Your task to perform on an android device: Open Yahoo.com Image 0: 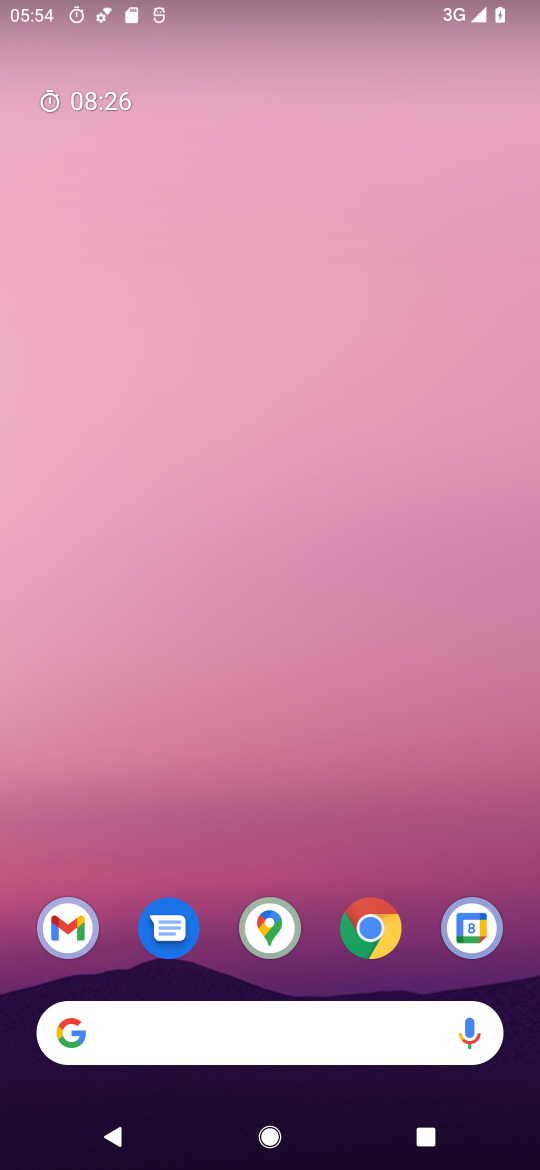
Step 0: drag from (249, 965) to (521, 451)
Your task to perform on an android device: Open Yahoo.com Image 1: 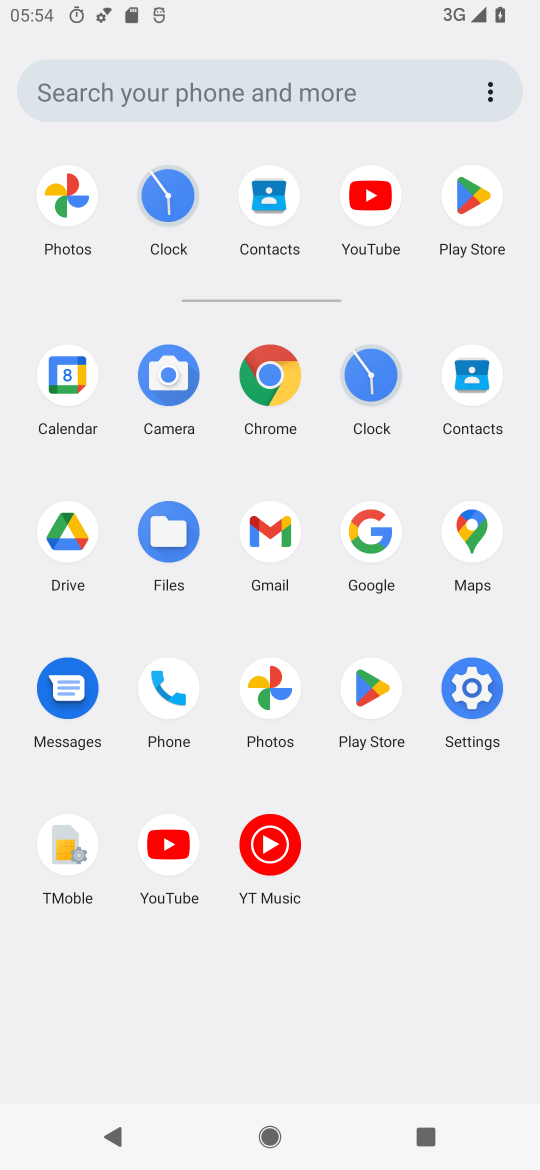
Step 1: click (256, 389)
Your task to perform on an android device: Open Yahoo.com Image 2: 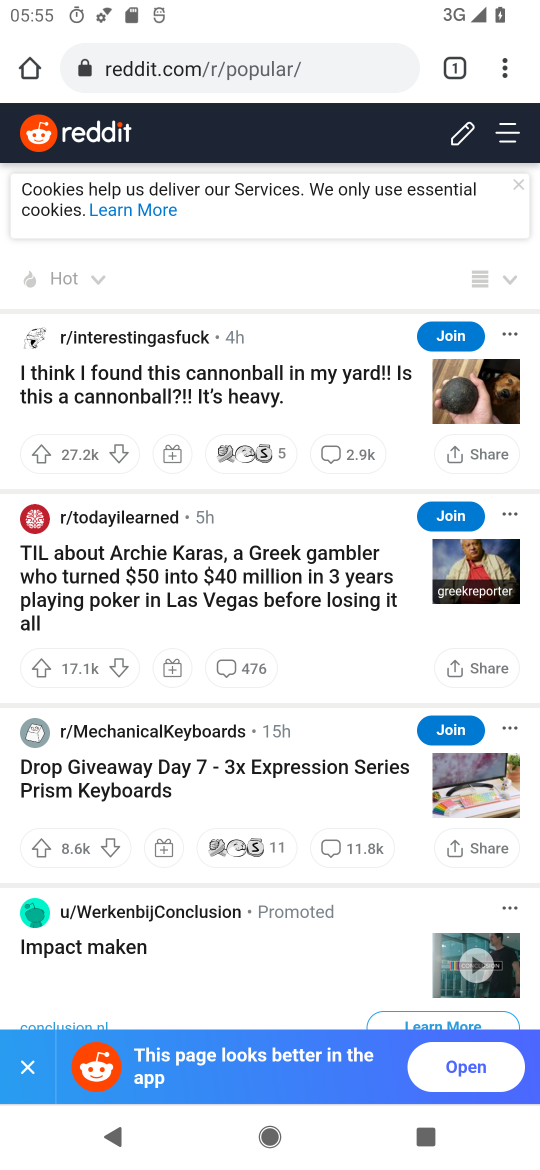
Step 2: click (273, 61)
Your task to perform on an android device: Open Yahoo.com Image 3: 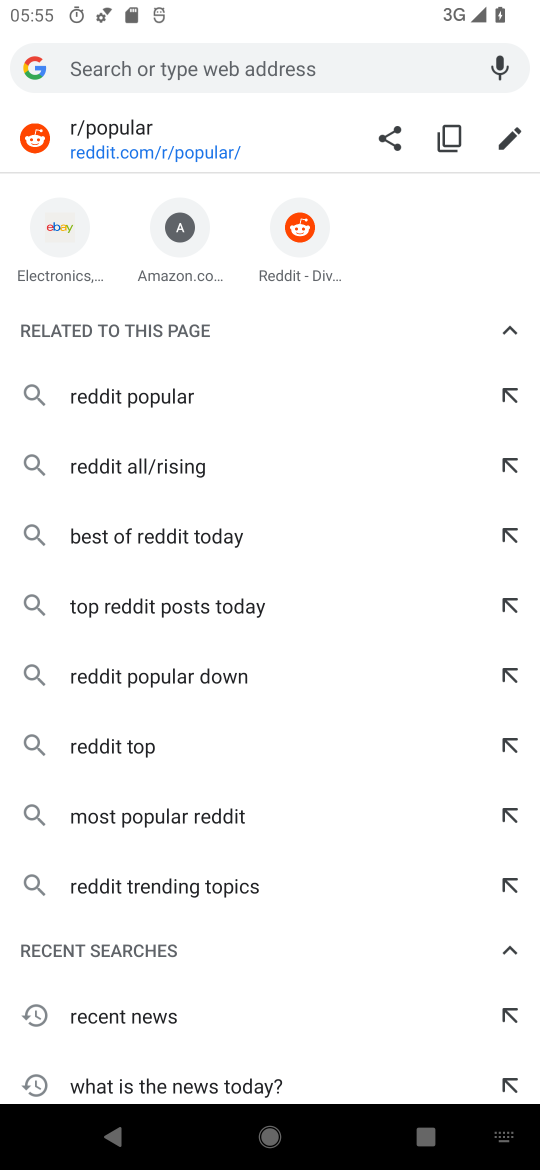
Step 3: type "yahoo.com"
Your task to perform on an android device: Open Yahoo.com Image 4: 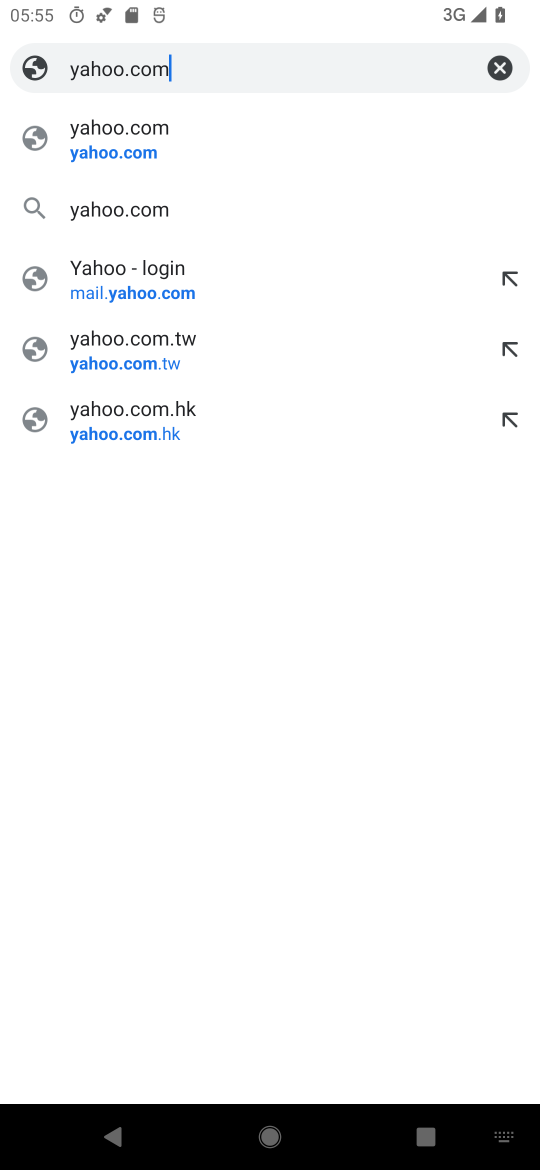
Step 4: click (161, 152)
Your task to perform on an android device: Open Yahoo.com Image 5: 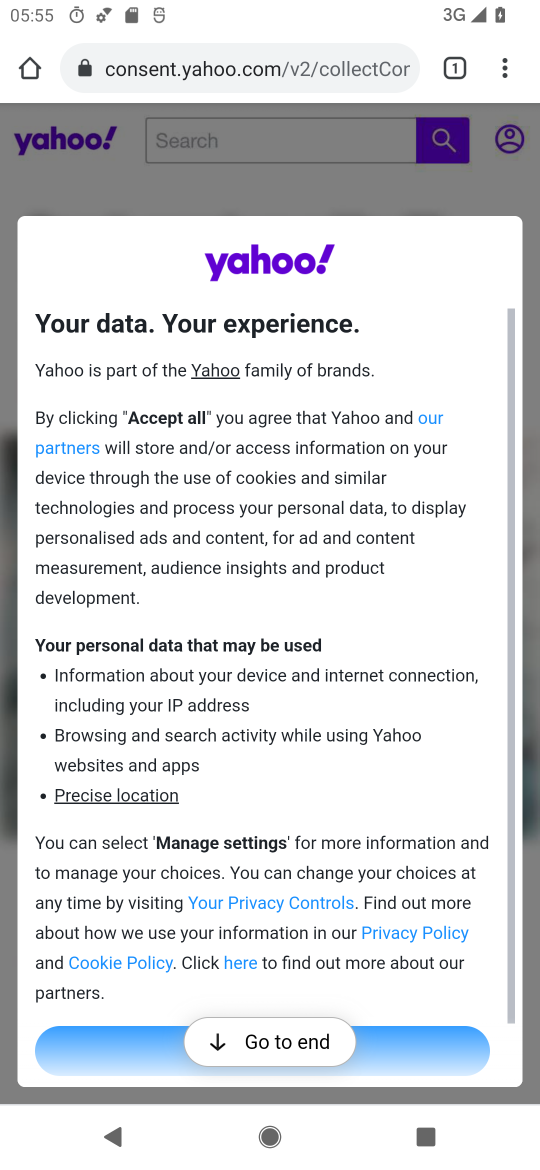
Step 5: task complete